Your task to perform on an android device: toggle notifications settings in the gmail app Image 0: 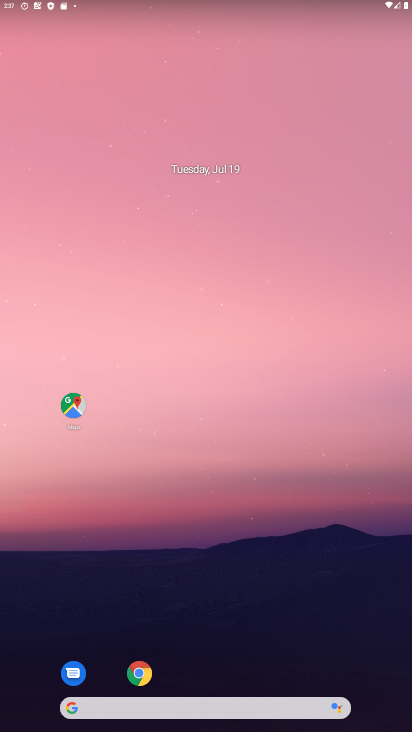
Step 0: drag from (209, 612) to (209, 0)
Your task to perform on an android device: toggle notifications settings in the gmail app Image 1: 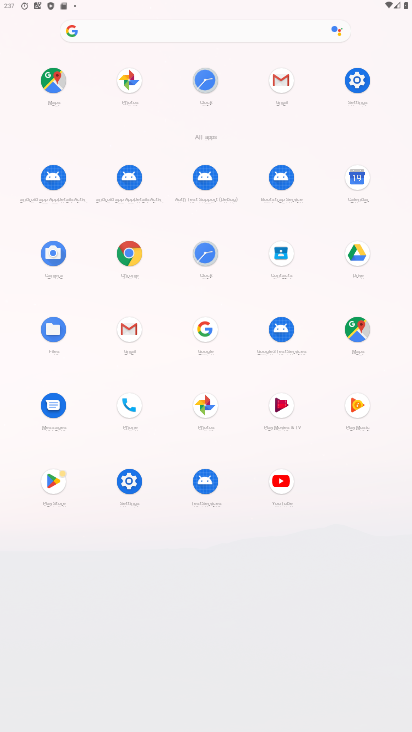
Step 1: click (133, 331)
Your task to perform on an android device: toggle notifications settings in the gmail app Image 2: 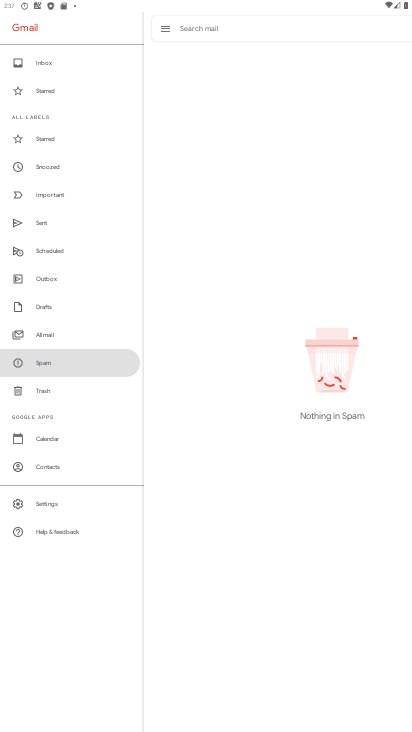
Step 2: click (51, 502)
Your task to perform on an android device: toggle notifications settings in the gmail app Image 3: 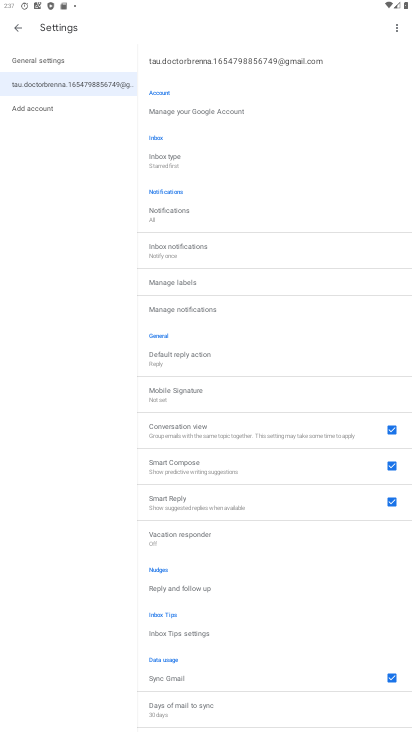
Step 3: click (41, 60)
Your task to perform on an android device: toggle notifications settings in the gmail app Image 4: 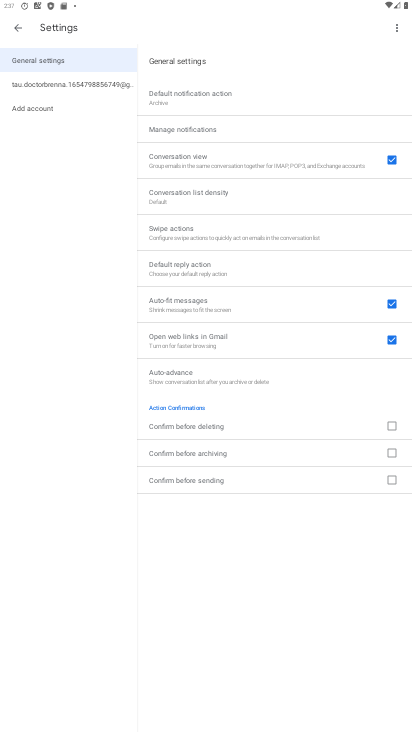
Step 4: click (191, 130)
Your task to perform on an android device: toggle notifications settings in the gmail app Image 5: 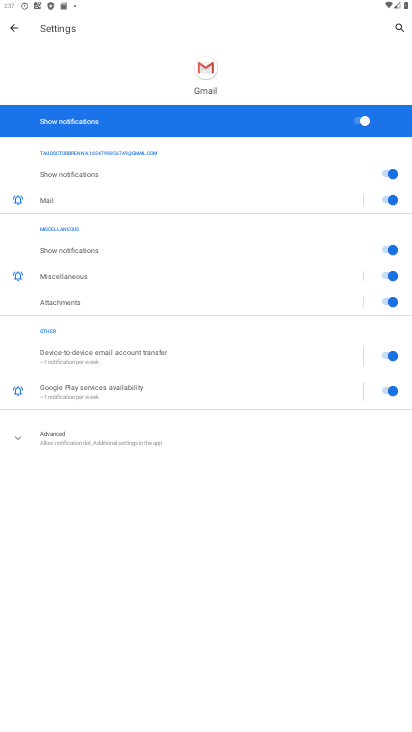
Step 5: click (321, 127)
Your task to perform on an android device: toggle notifications settings in the gmail app Image 6: 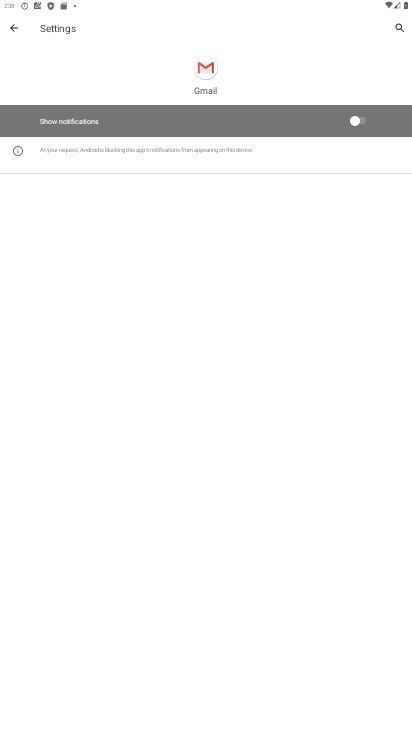
Step 6: task complete